Your task to perform on an android device: Open Google Image 0: 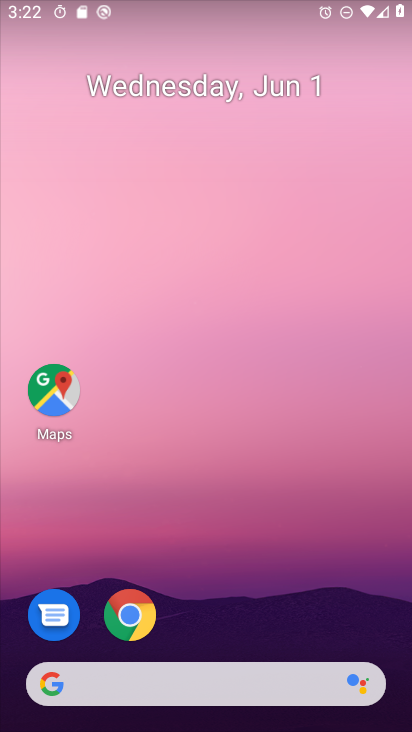
Step 0: drag from (140, 685) to (199, 69)
Your task to perform on an android device: Open Google Image 1: 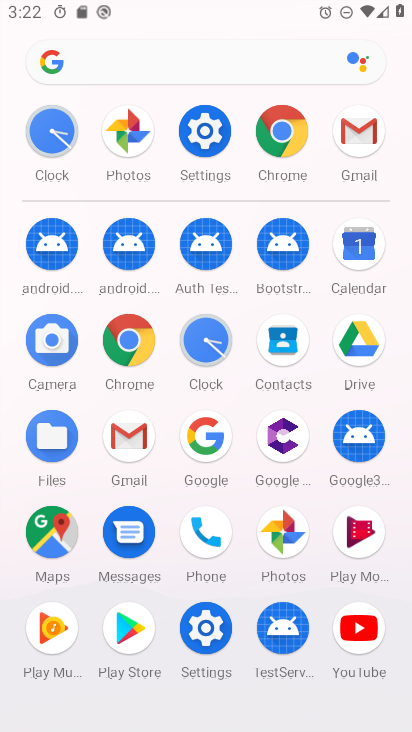
Step 1: drag from (296, 650) to (321, 26)
Your task to perform on an android device: Open Google Image 2: 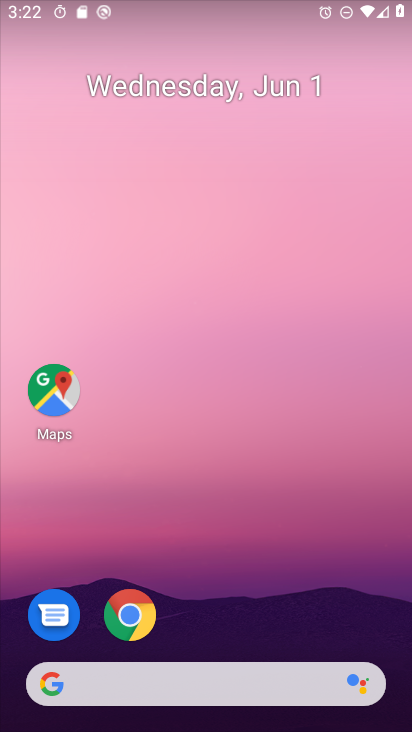
Step 2: press home button
Your task to perform on an android device: Open Google Image 3: 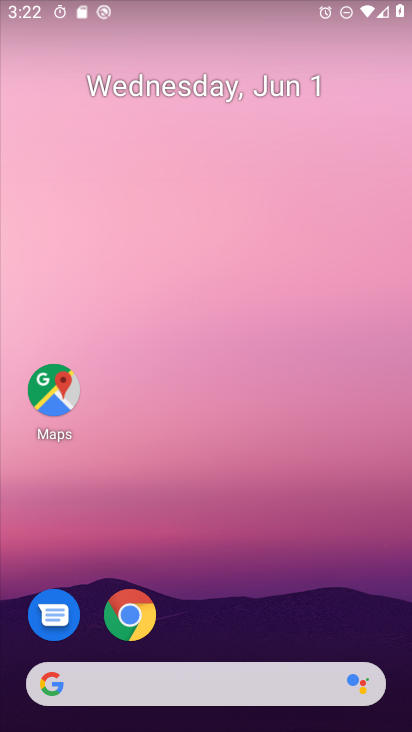
Step 3: drag from (284, 656) to (368, 2)
Your task to perform on an android device: Open Google Image 4: 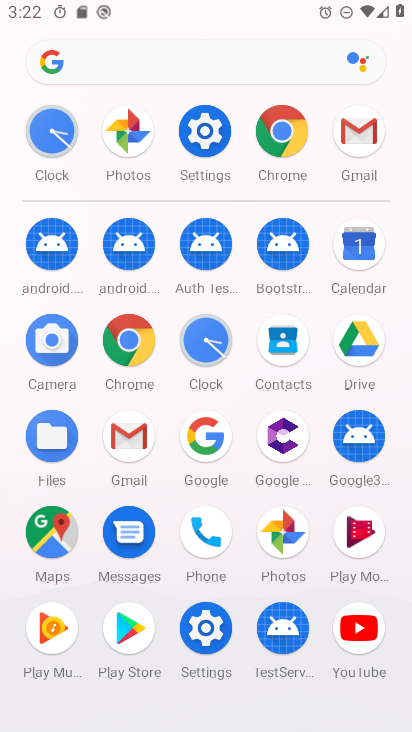
Step 4: click (116, 330)
Your task to perform on an android device: Open Google Image 5: 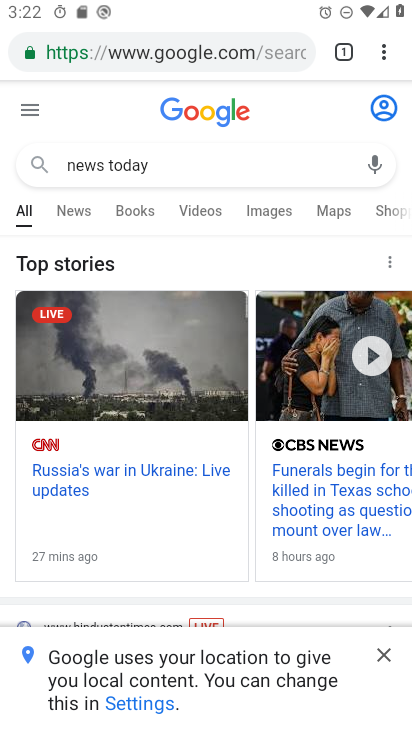
Step 5: task complete